Your task to perform on an android device: Go to Wikipedia Image 0: 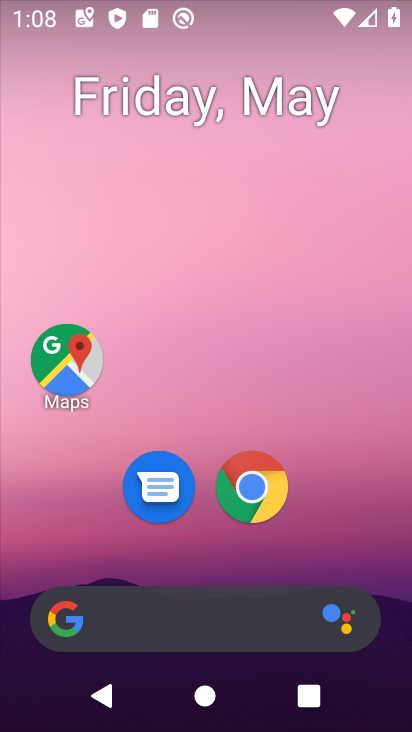
Step 0: click (252, 490)
Your task to perform on an android device: Go to Wikipedia Image 1: 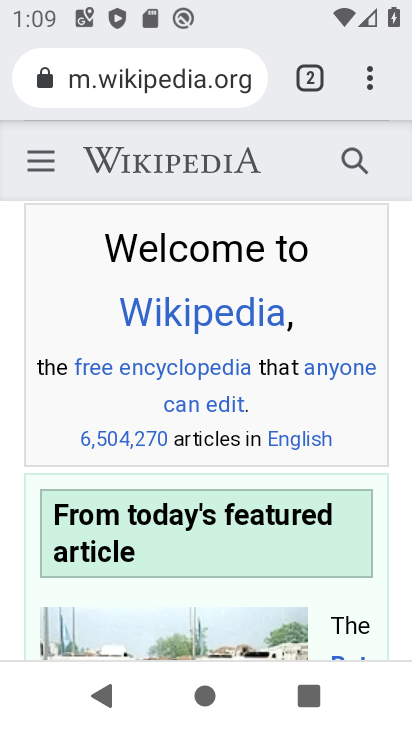
Step 1: task complete